Your task to perform on an android device: Open the map Image 0: 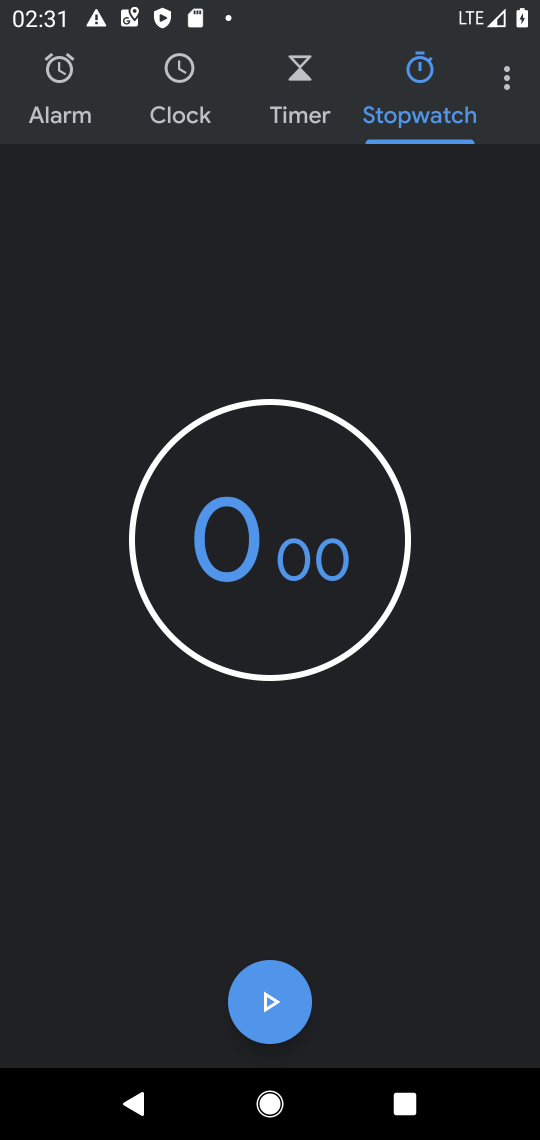
Step 0: press home button
Your task to perform on an android device: Open the map Image 1: 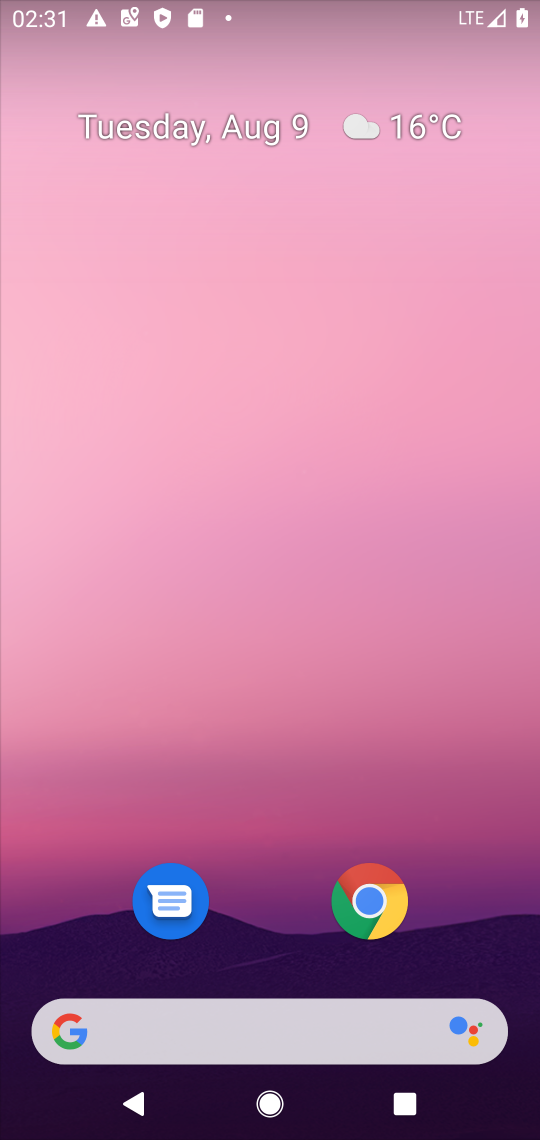
Step 1: drag from (482, 942) to (431, 106)
Your task to perform on an android device: Open the map Image 2: 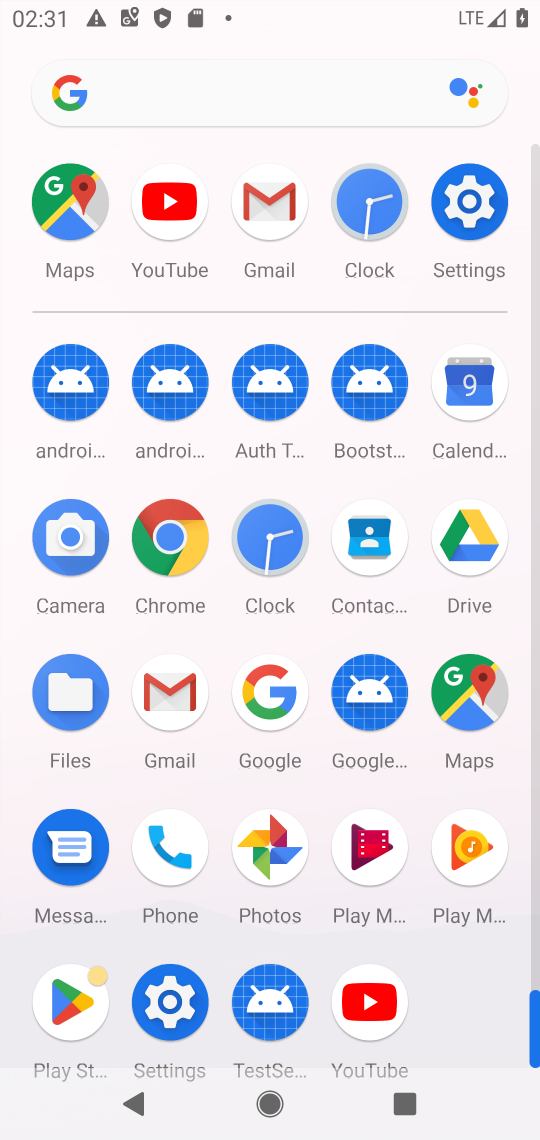
Step 2: click (472, 697)
Your task to perform on an android device: Open the map Image 3: 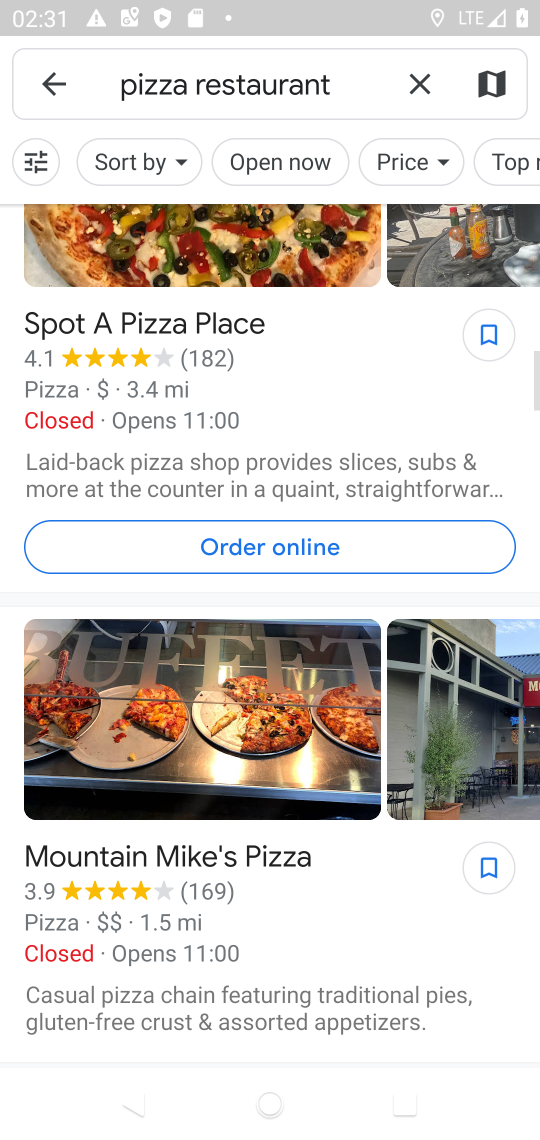
Step 3: click (419, 80)
Your task to perform on an android device: Open the map Image 4: 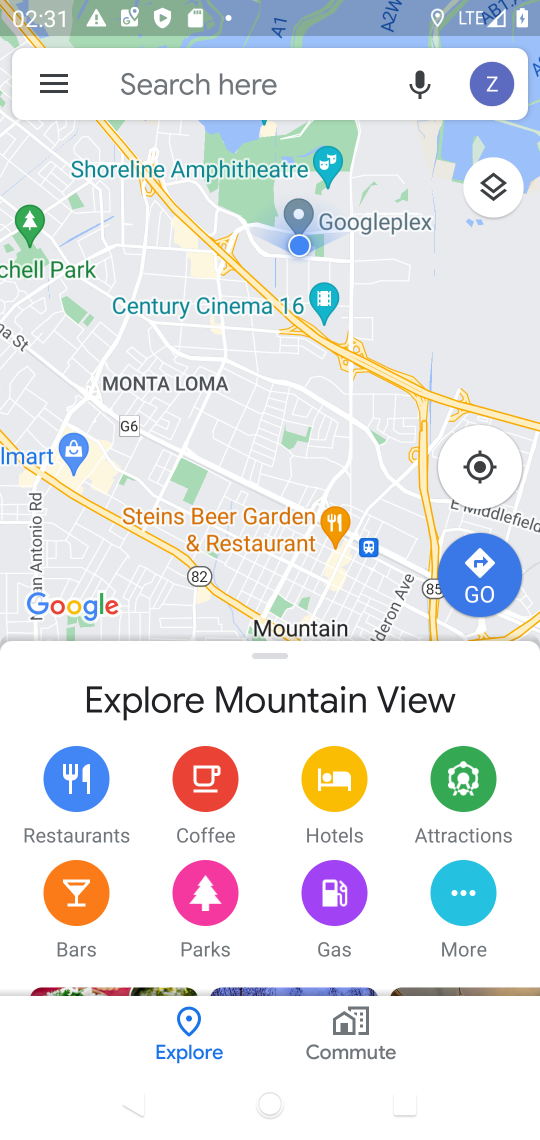
Step 4: task complete